Your task to perform on an android device: change the clock display to digital Image 0: 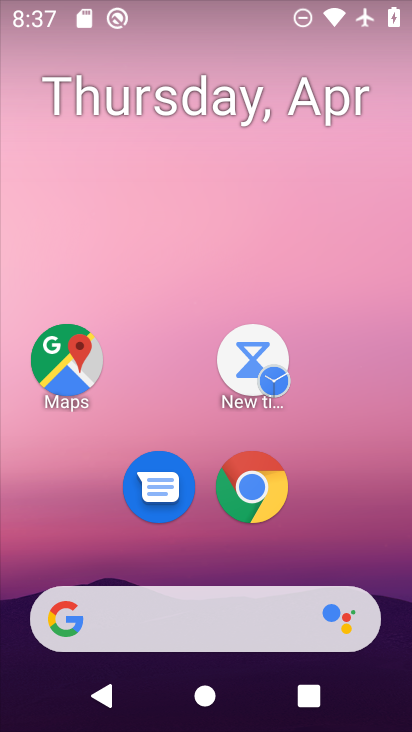
Step 0: drag from (335, 509) to (295, 86)
Your task to perform on an android device: change the clock display to digital Image 1: 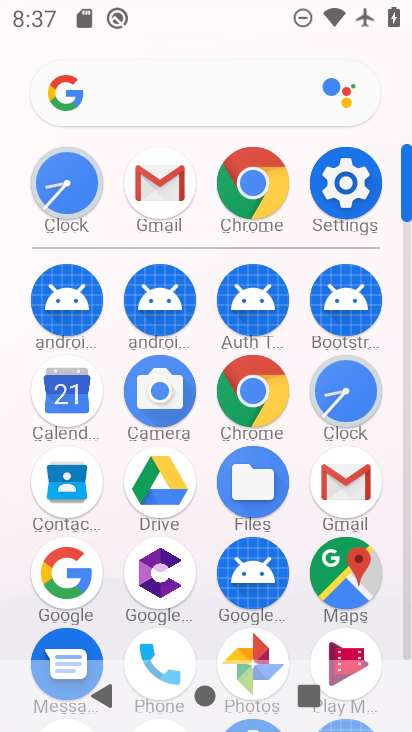
Step 1: click (343, 394)
Your task to perform on an android device: change the clock display to digital Image 2: 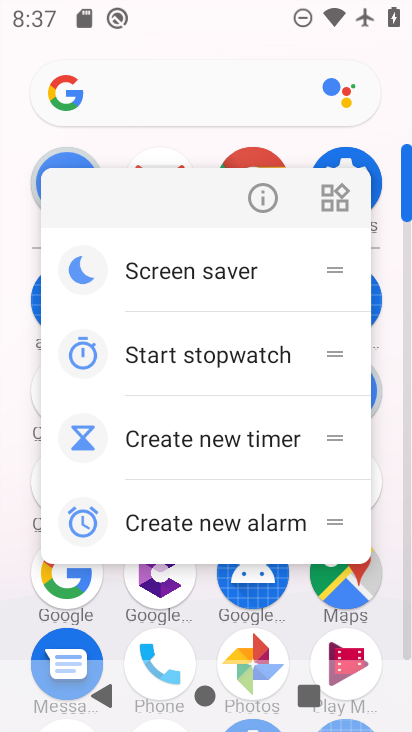
Step 2: click (389, 407)
Your task to perform on an android device: change the clock display to digital Image 3: 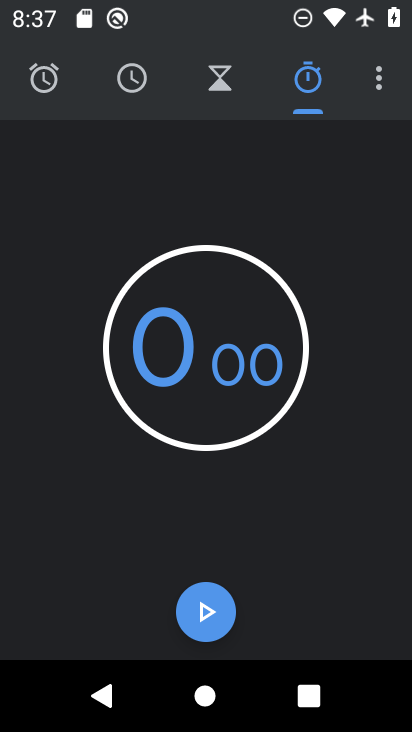
Step 3: click (376, 74)
Your task to perform on an android device: change the clock display to digital Image 4: 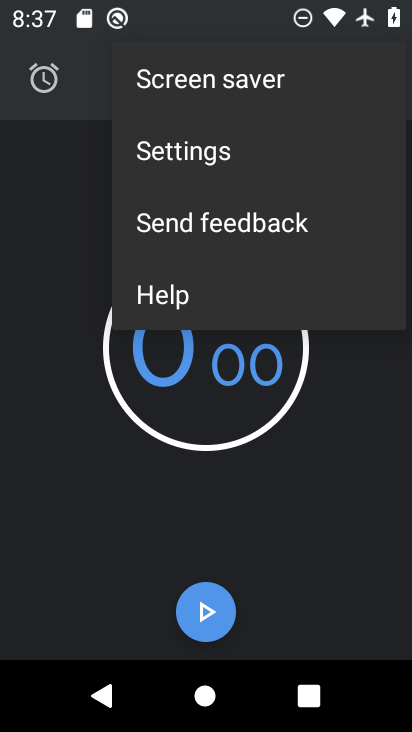
Step 4: click (201, 153)
Your task to perform on an android device: change the clock display to digital Image 5: 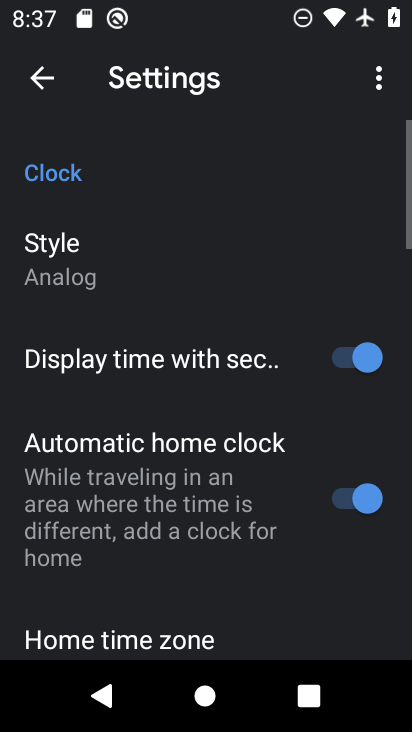
Step 5: click (71, 269)
Your task to perform on an android device: change the clock display to digital Image 6: 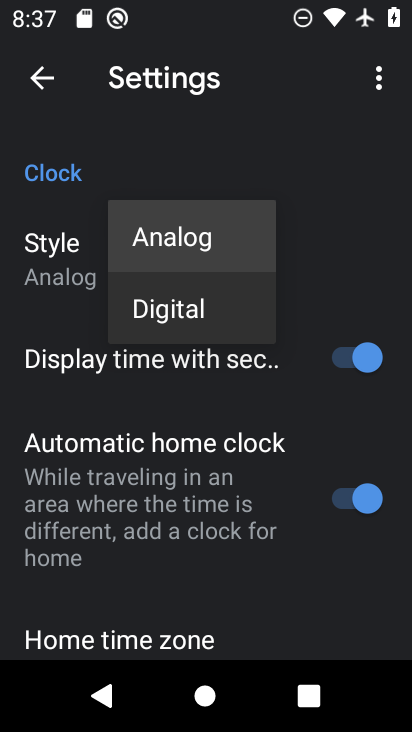
Step 6: click (166, 312)
Your task to perform on an android device: change the clock display to digital Image 7: 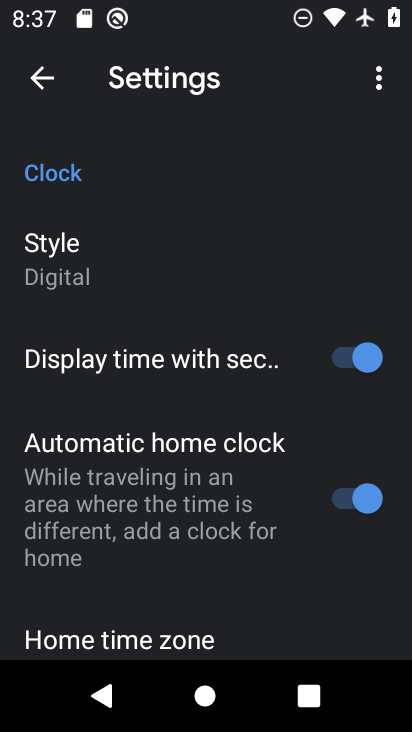
Step 7: task complete